Your task to perform on an android device: snooze an email in the gmail app Image 0: 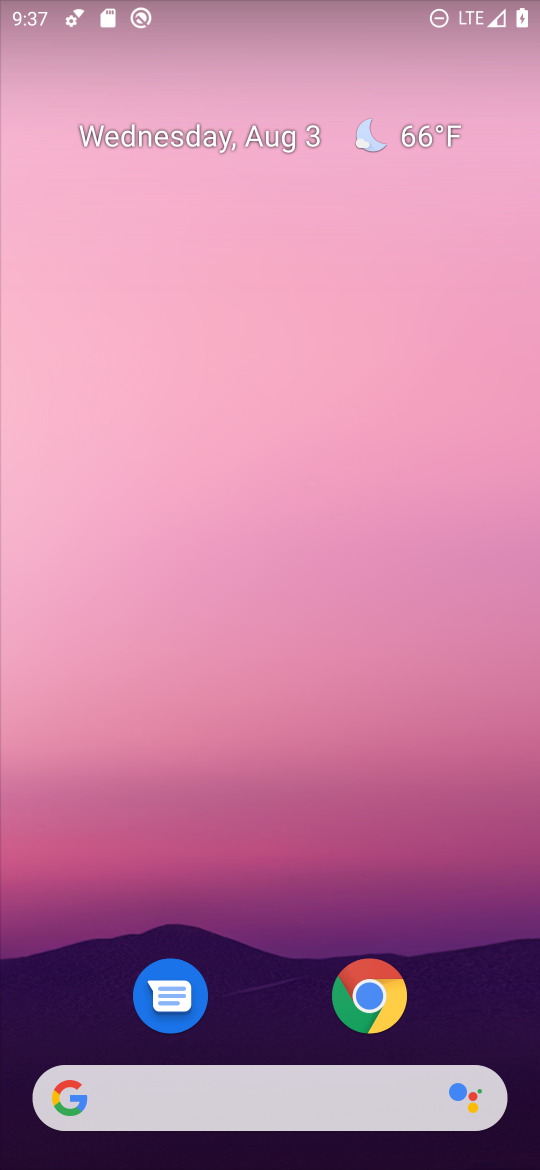
Step 0: drag from (324, 698) to (303, 3)
Your task to perform on an android device: snooze an email in the gmail app Image 1: 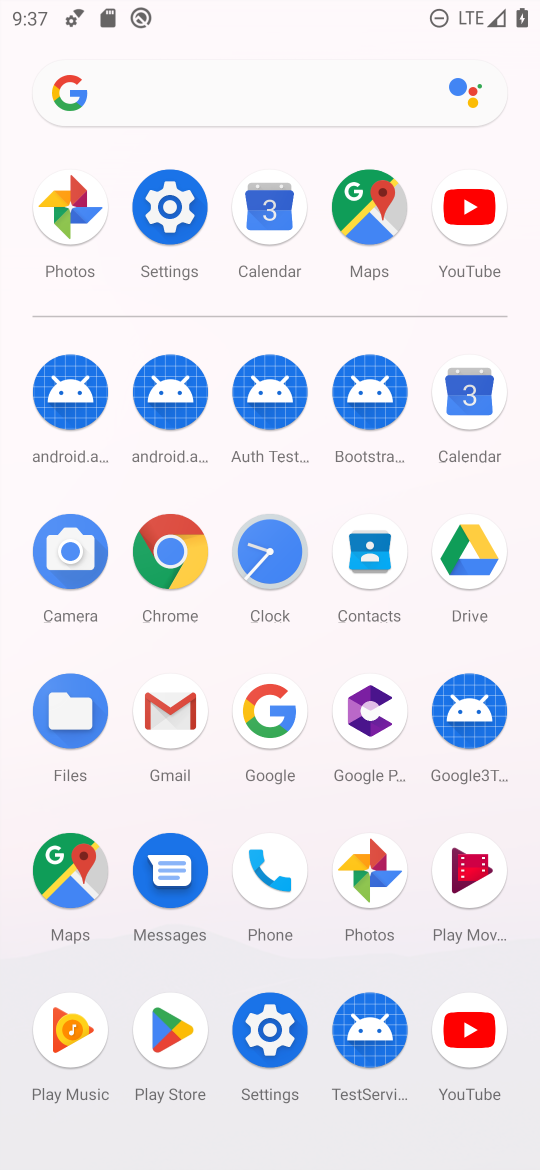
Step 1: click (168, 707)
Your task to perform on an android device: snooze an email in the gmail app Image 2: 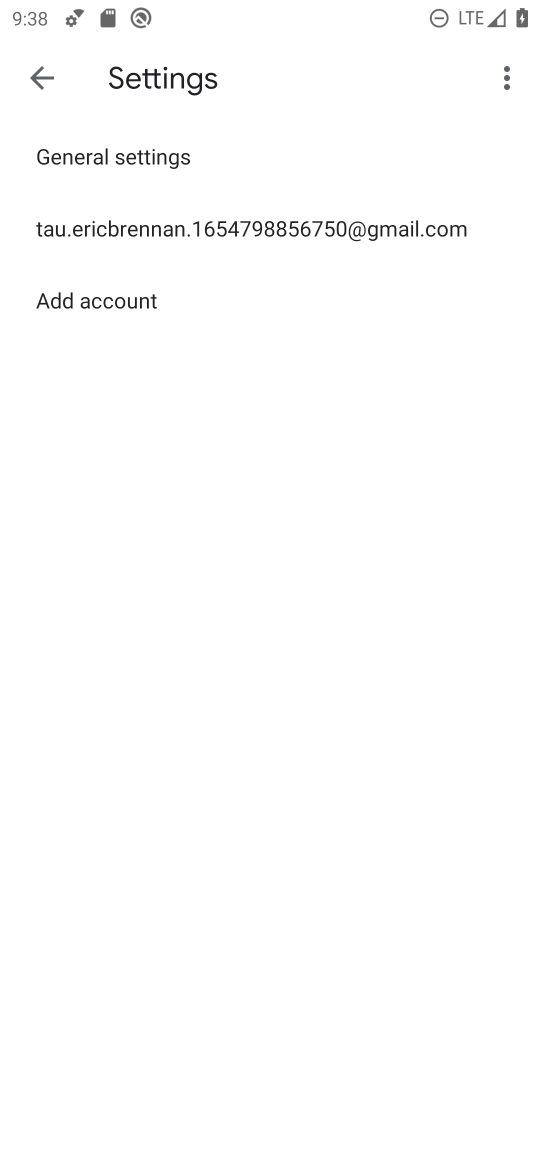
Step 2: click (37, 67)
Your task to perform on an android device: snooze an email in the gmail app Image 3: 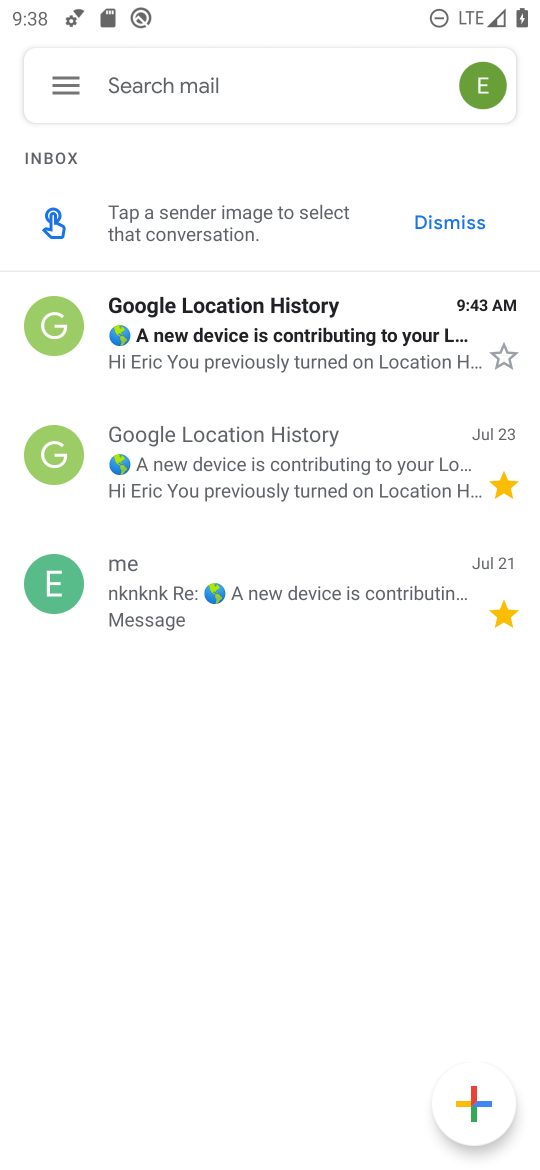
Step 3: click (307, 489)
Your task to perform on an android device: snooze an email in the gmail app Image 4: 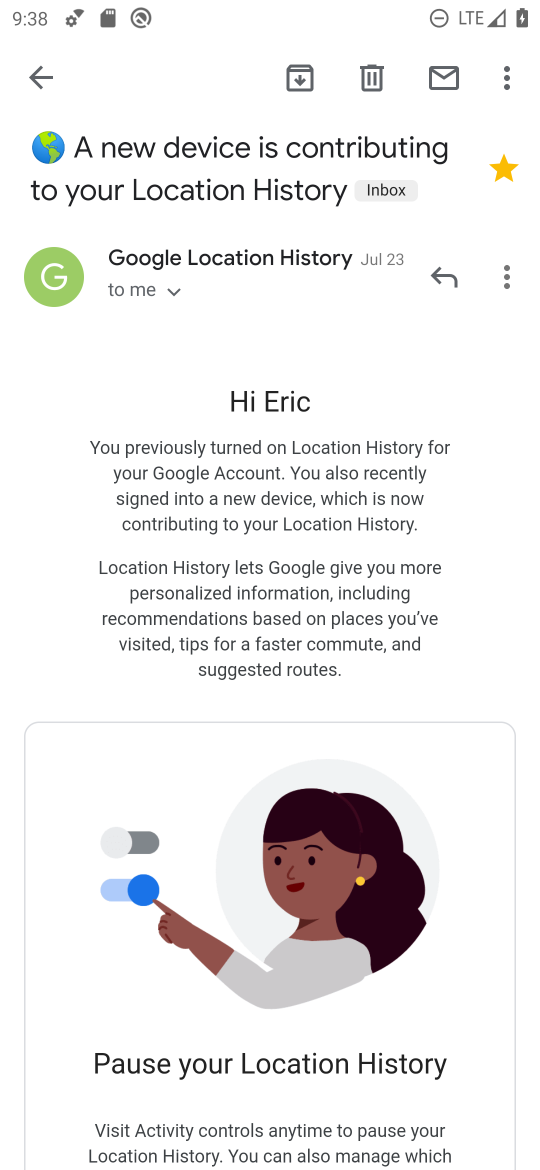
Step 4: click (503, 81)
Your task to perform on an android device: snooze an email in the gmail app Image 5: 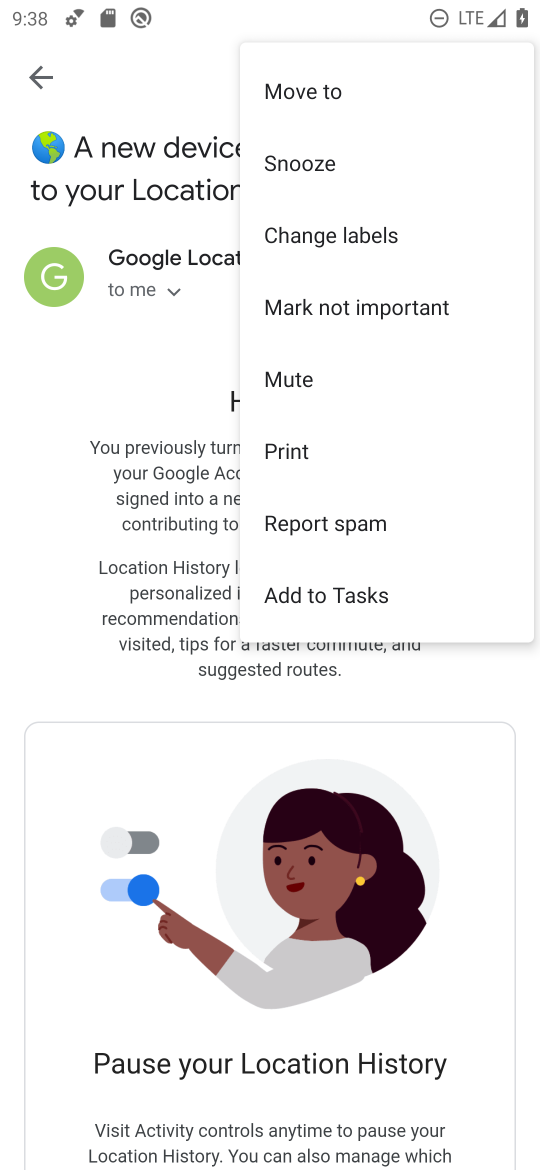
Step 5: click (363, 153)
Your task to perform on an android device: snooze an email in the gmail app Image 6: 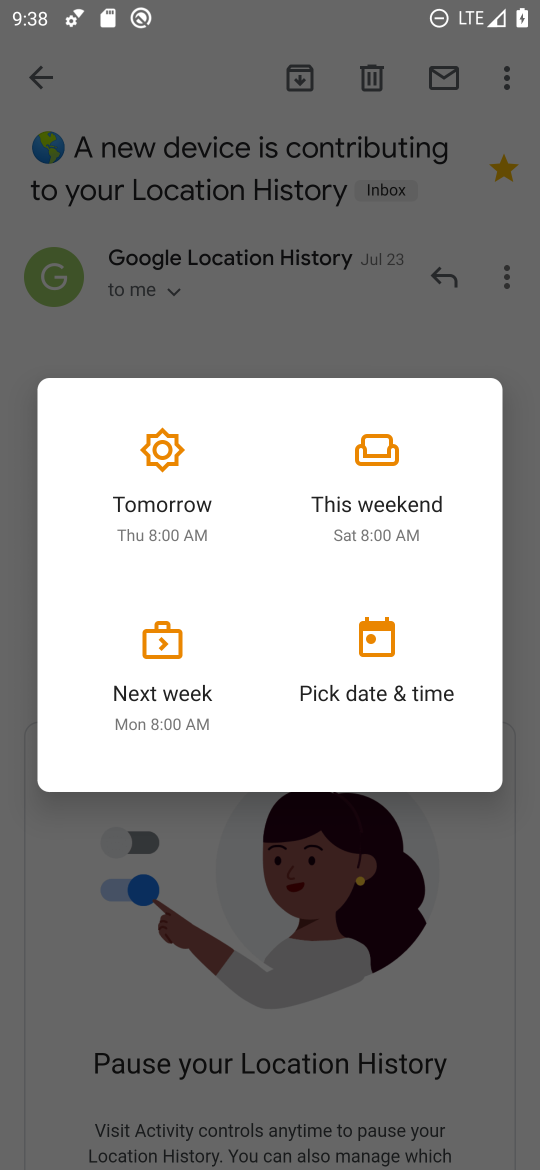
Step 6: click (368, 489)
Your task to perform on an android device: snooze an email in the gmail app Image 7: 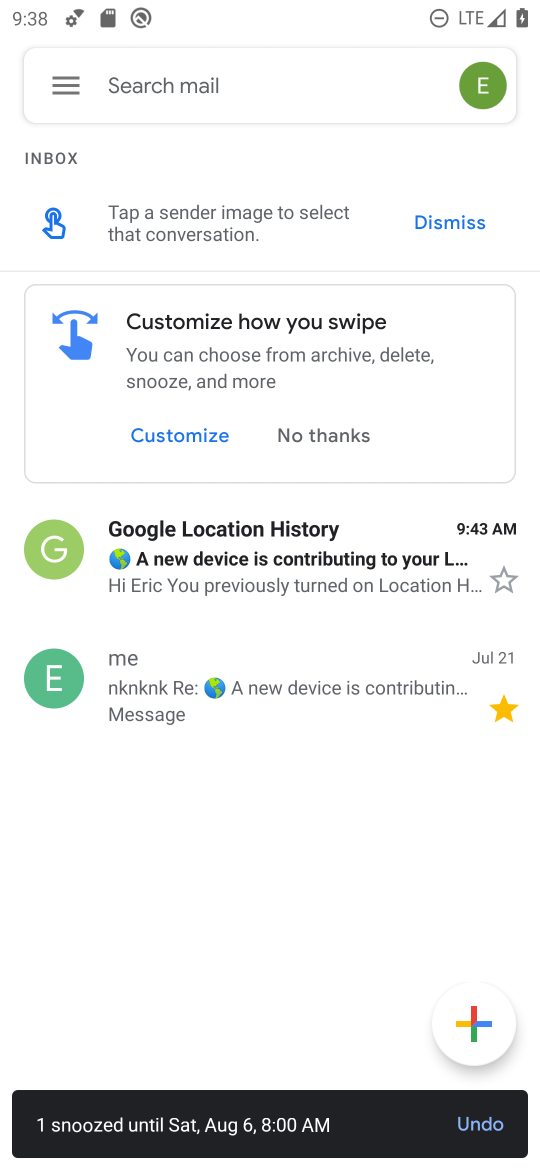
Step 7: task complete